Your task to perform on an android device: Search for a new grill on Home Depot Image 0: 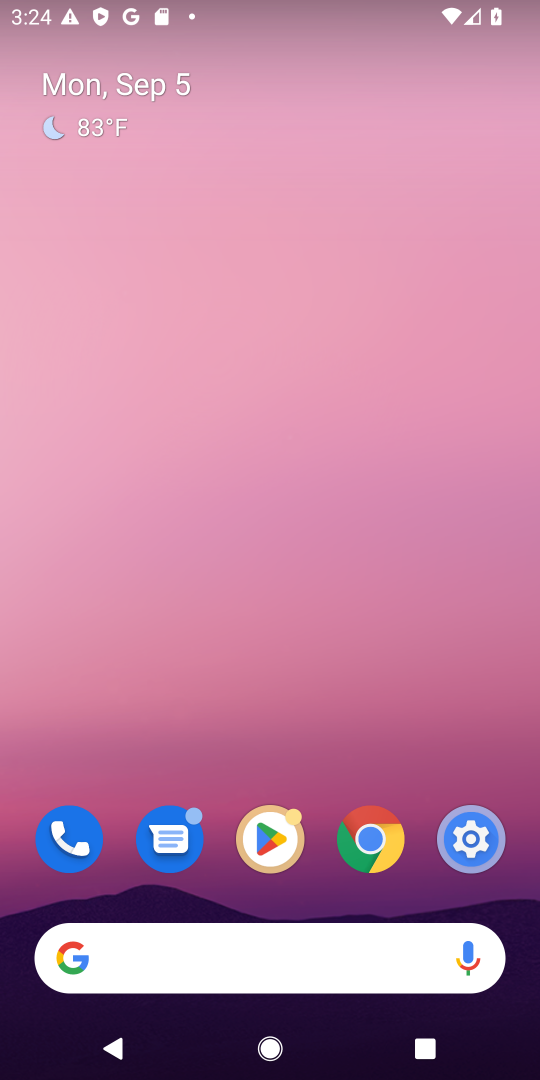
Step 0: click (383, 955)
Your task to perform on an android device: Search for a new grill on Home Depot Image 1: 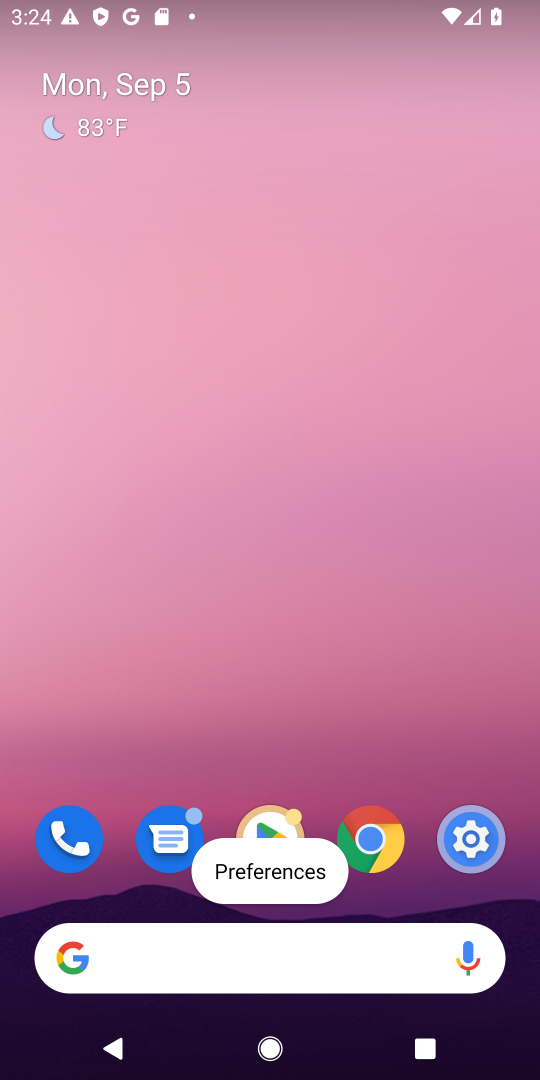
Step 1: click (381, 956)
Your task to perform on an android device: Search for a new grill on Home Depot Image 2: 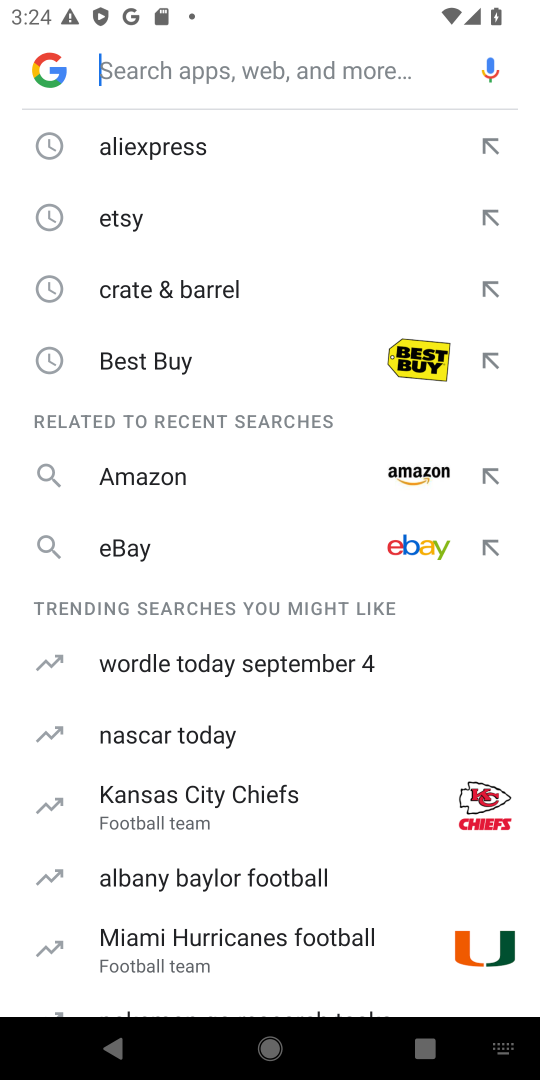
Step 2: type "home depot"
Your task to perform on an android device: Search for a new grill on Home Depot Image 3: 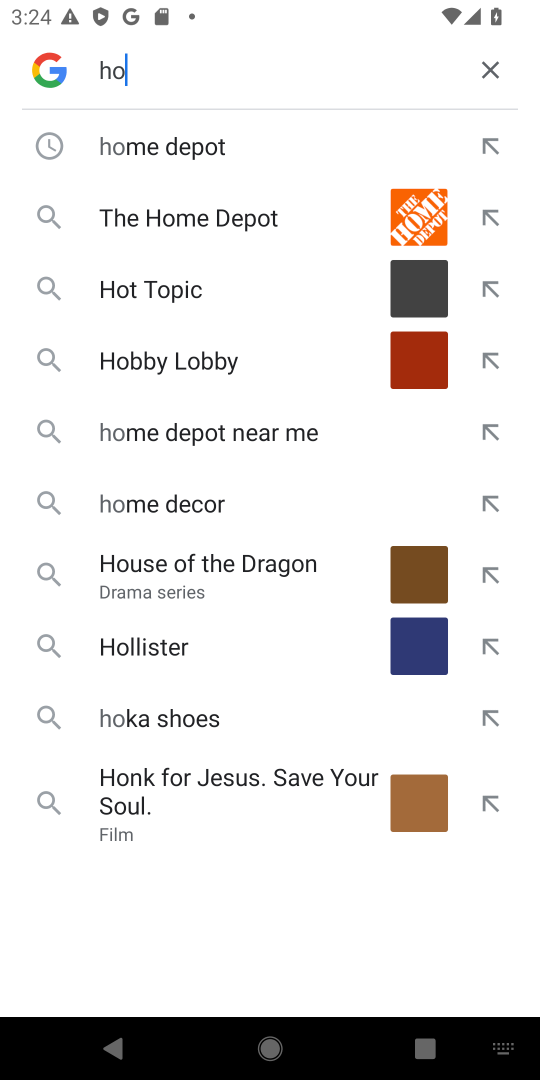
Step 3: type ""
Your task to perform on an android device: Search for a new grill on Home Depot Image 4: 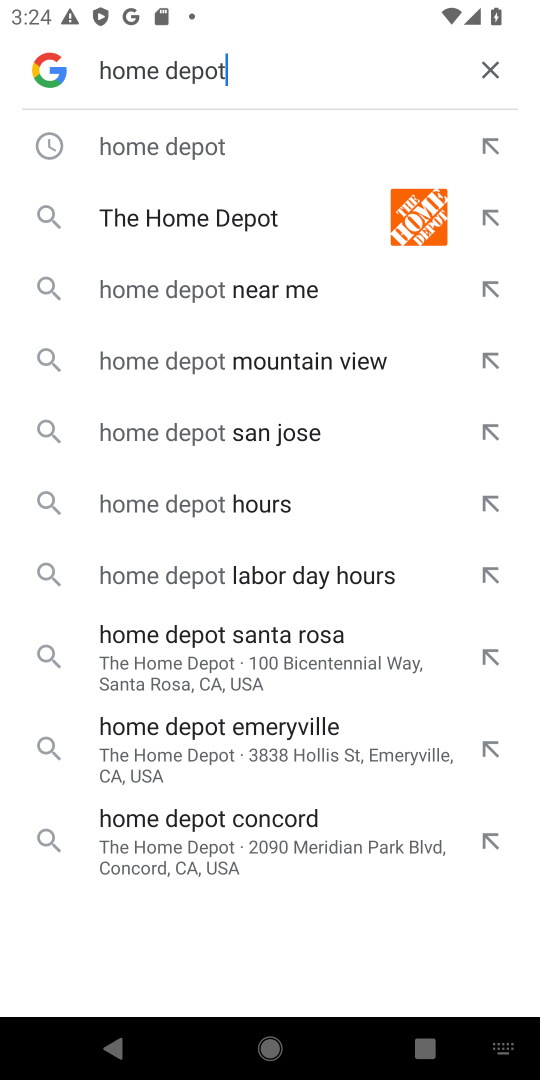
Step 4: press enter
Your task to perform on an android device: Search for a new grill on Home Depot Image 5: 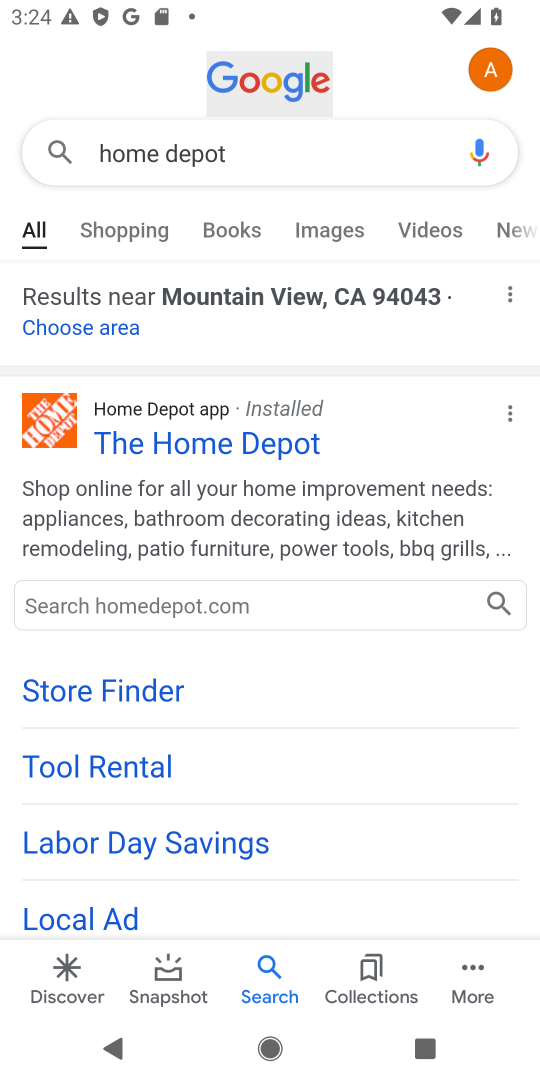
Step 5: drag from (346, 139) to (346, 84)
Your task to perform on an android device: Search for a new grill on Home Depot Image 6: 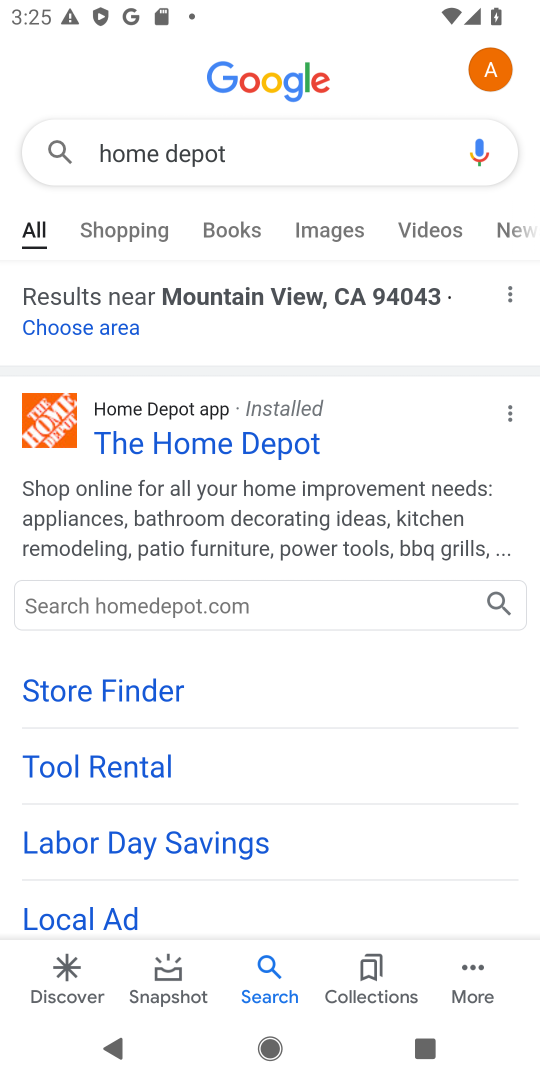
Step 6: drag from (398, 414) to (419, 90)
Your task to perform on an android device: Search for a new grill on Home Depot Image 7: 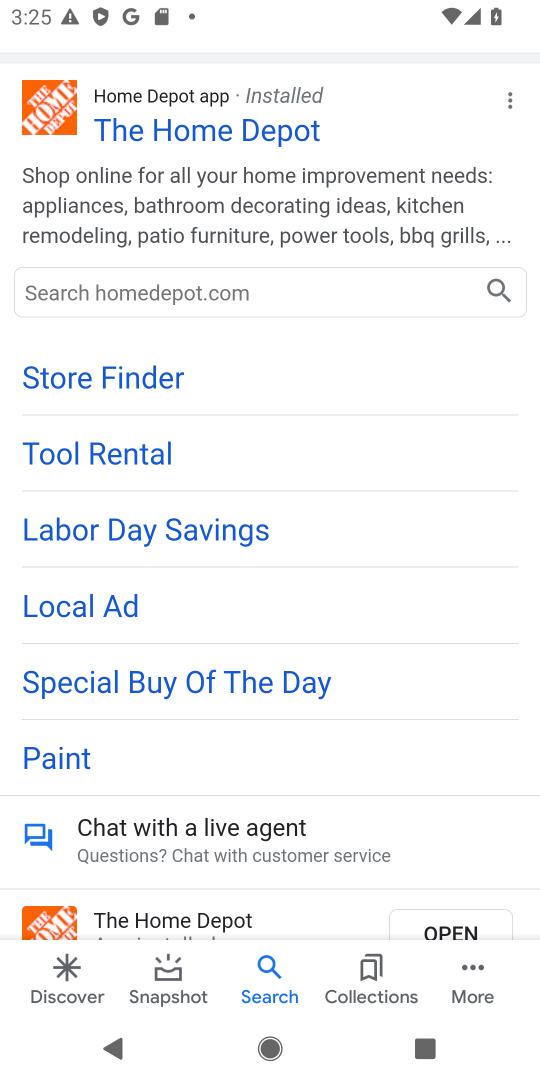
Step 7: drag from (315, 892) to (389, 201)
Your task to perform on an android device: Search for a new grill on Home Depot Image 8: 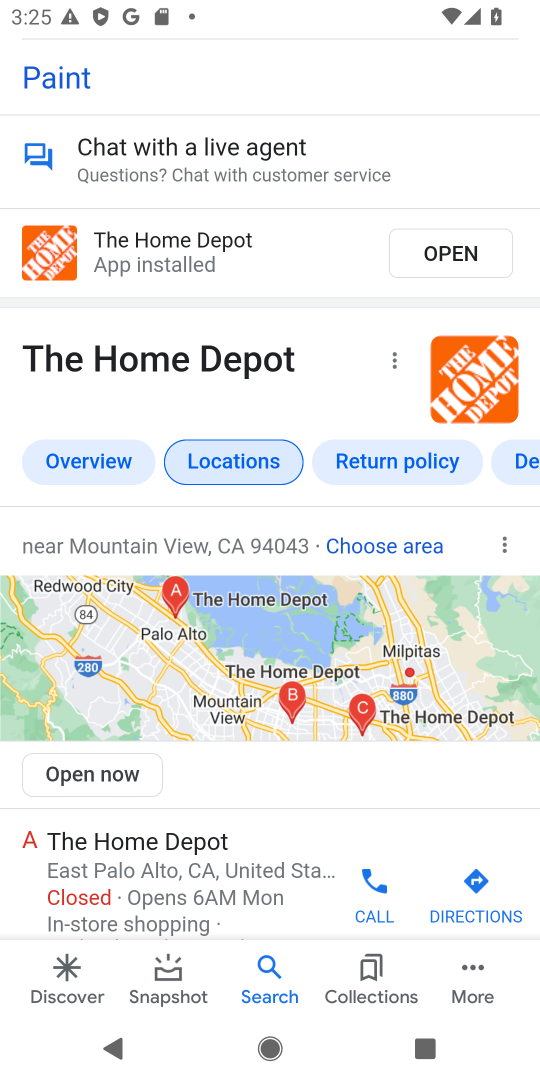
Step 8: drag from (345, 747) to (352, 105)
Your task to perform on an android device: Search for a new grill on Home Depot Image 9: 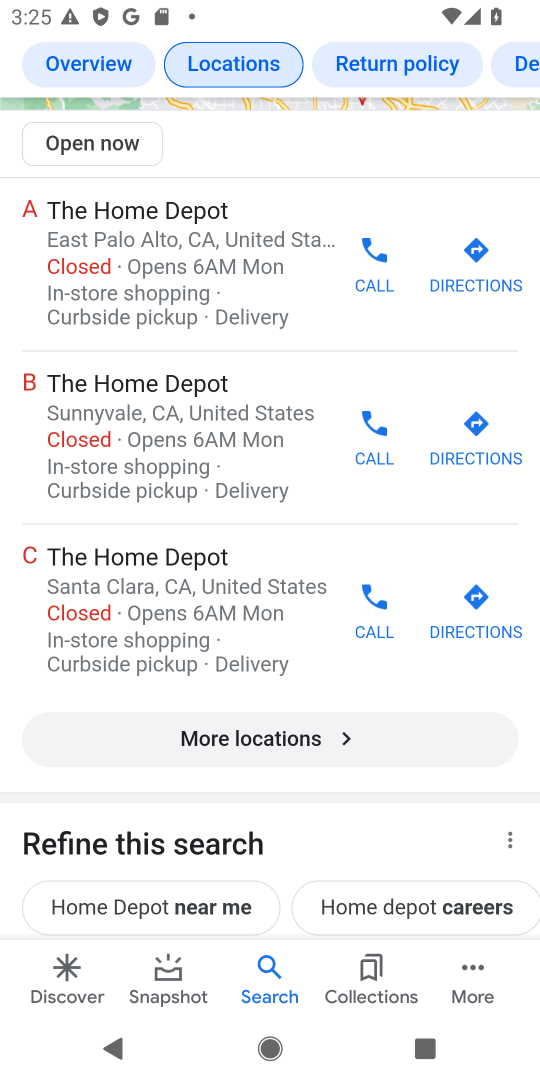
Step 9: drag from (283, 723) to (307, 254)
Your task to perform on an android device: Search for a new grill on Home Depot Image 10: 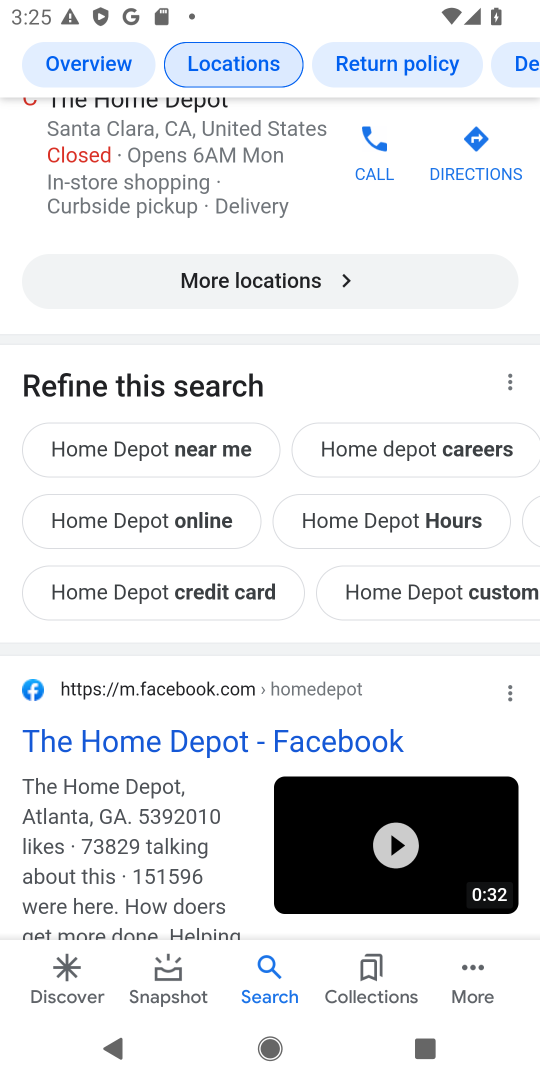
Step 10: click (422, 700)
Your task to perform on an android device: Search for a new grill on Home Depot Image 11: 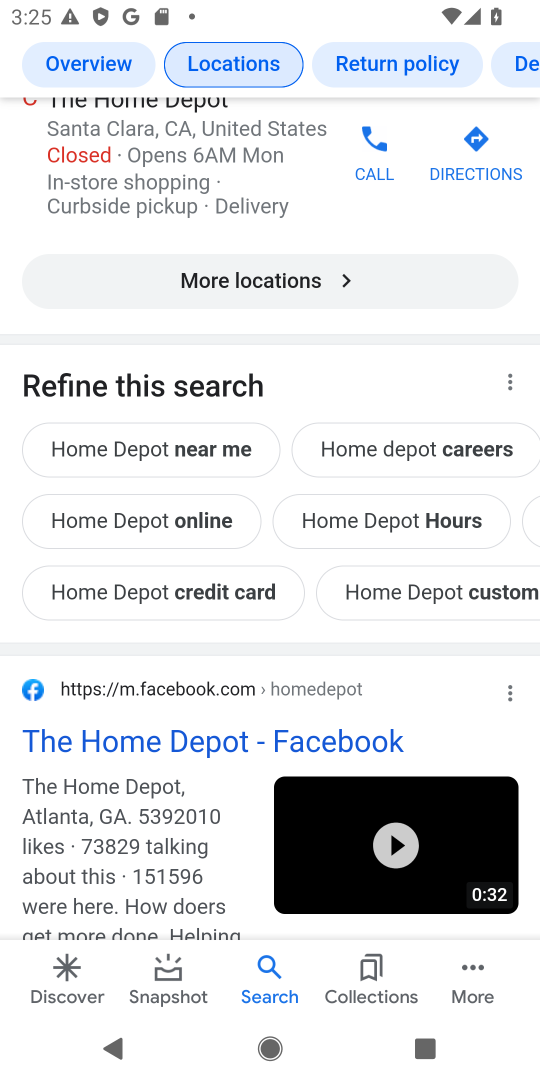
Step 11: drag from (419, 405) to (419, 246)
Your task to perform on an android device: Search for a new grill on Home Depot Image 12: 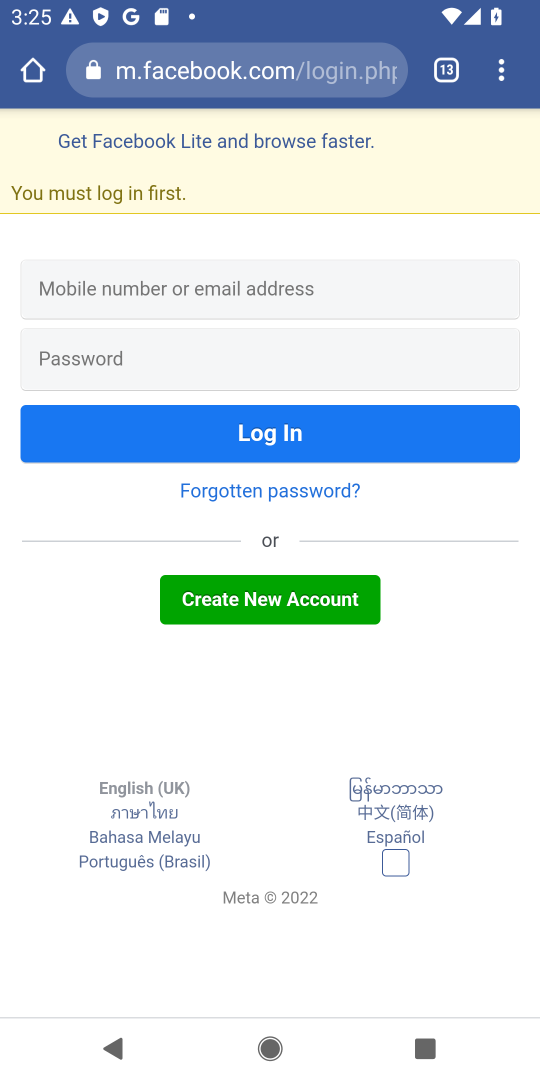
Step 12: press back button
Your task to perform on an android device: Search for a new grill on Home Depot Image 13: 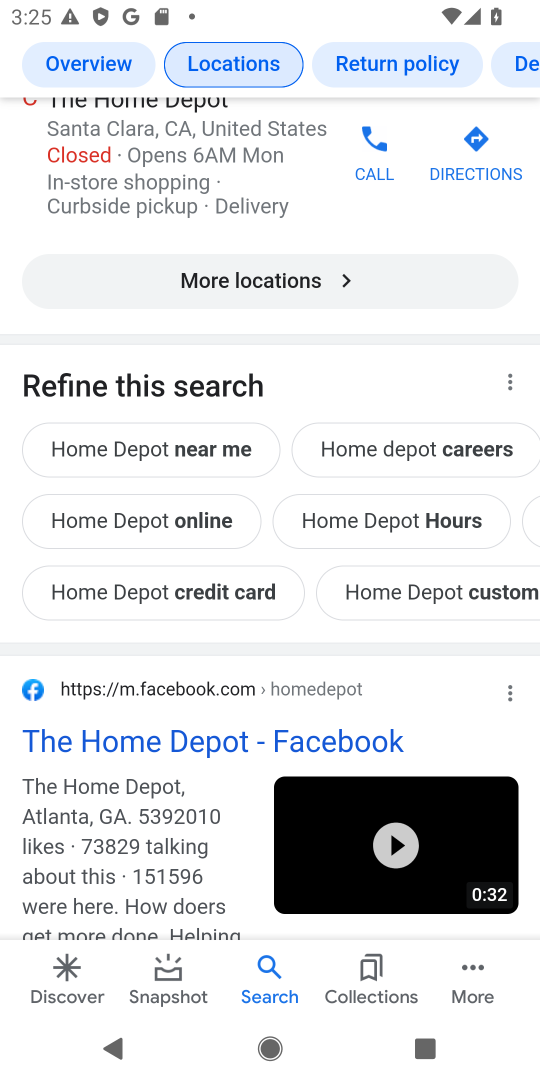
Step 13: drag from (8, 574) to (53, 238)
Your task to perform on an android device: Search for a new grill on Home Depot Image 14: 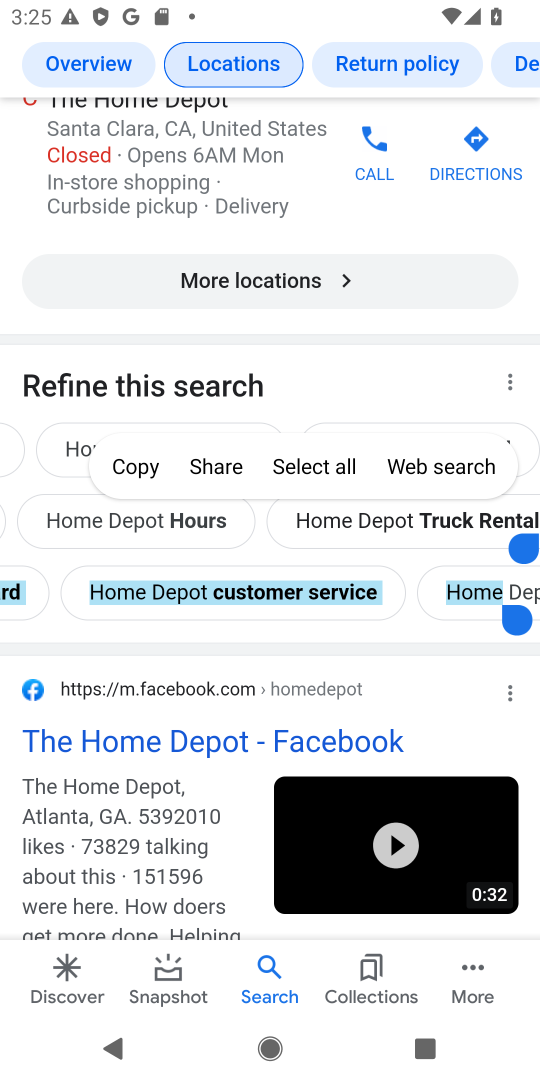
Step 14: drag from (309, 335) to (299, 1070)
Your task to perform on an android device: Search for a new grill on Home Depot Image 15: 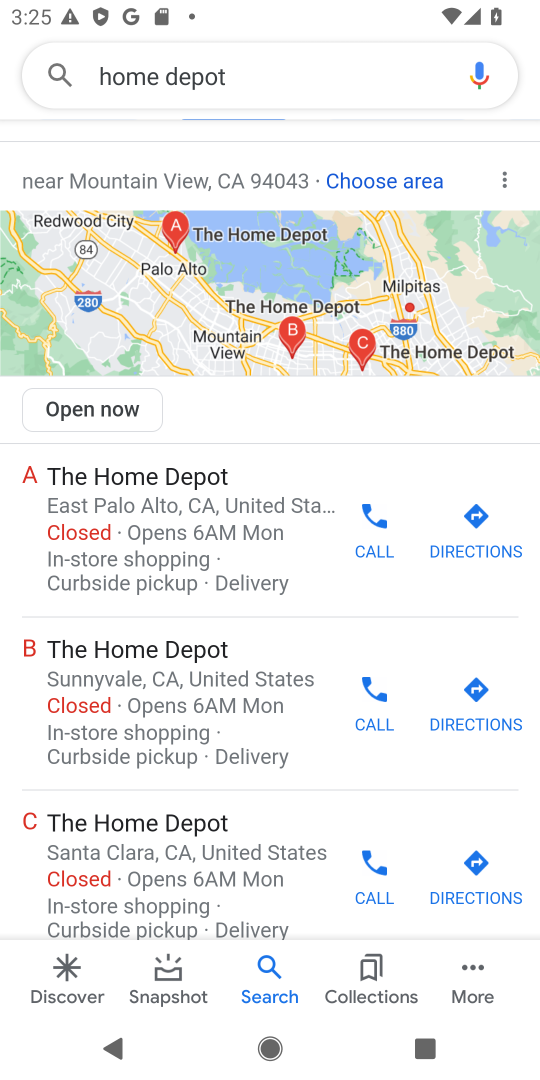
Step 15: drag from (327, 416) to (334, 1048)
Your task to perform on an android device: Search for a new grill on Home Depot Image 16: 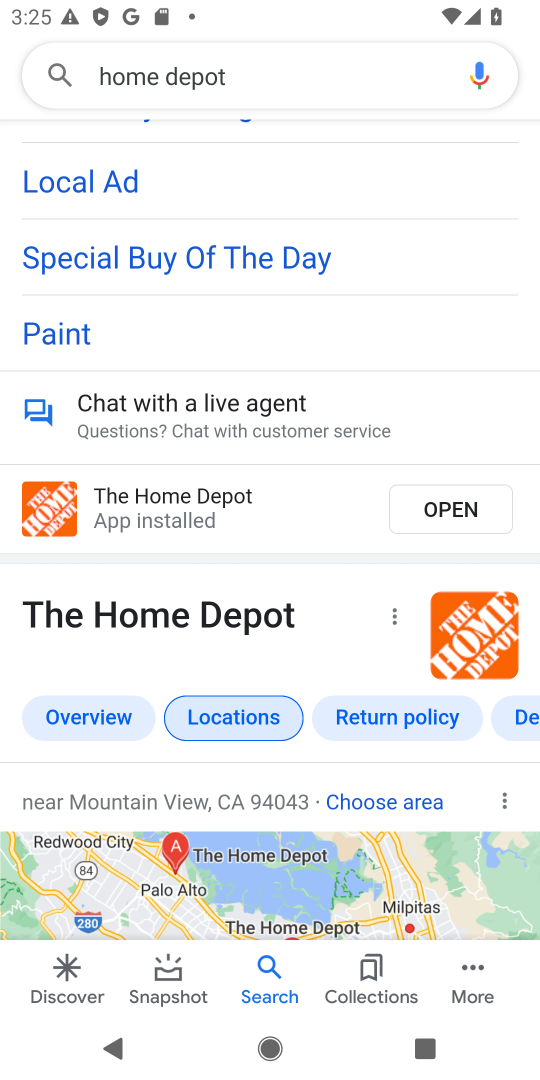
Step 16: drag from (324, 719) to (330, 944)
Your task to perform on an android device: Search for a new grill on Home Depot Image 17: 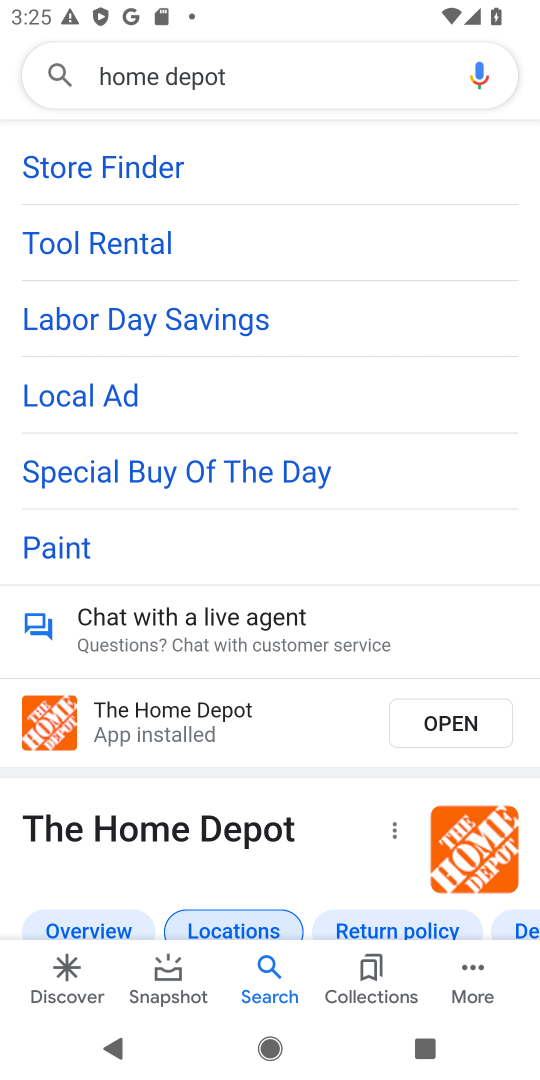
Step 17: drag from (317, 695) to (328, 950)
Your task to perform on an android device: Search for a new grill on Home Depot Image 18: 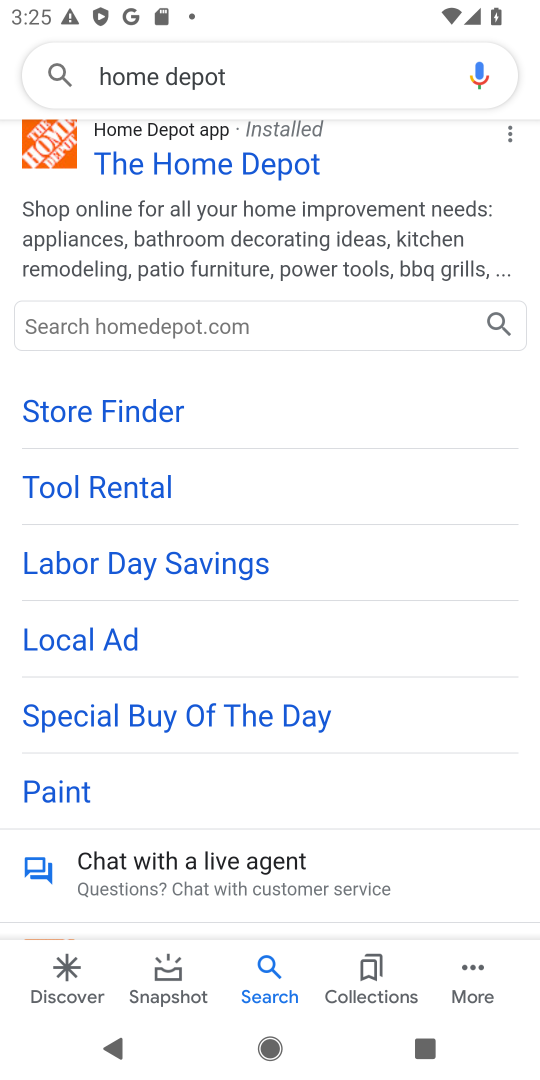
Step 18: click (256, 324)
Your task to perform on an android device: Search for a new grill on Home Depot Image 19: 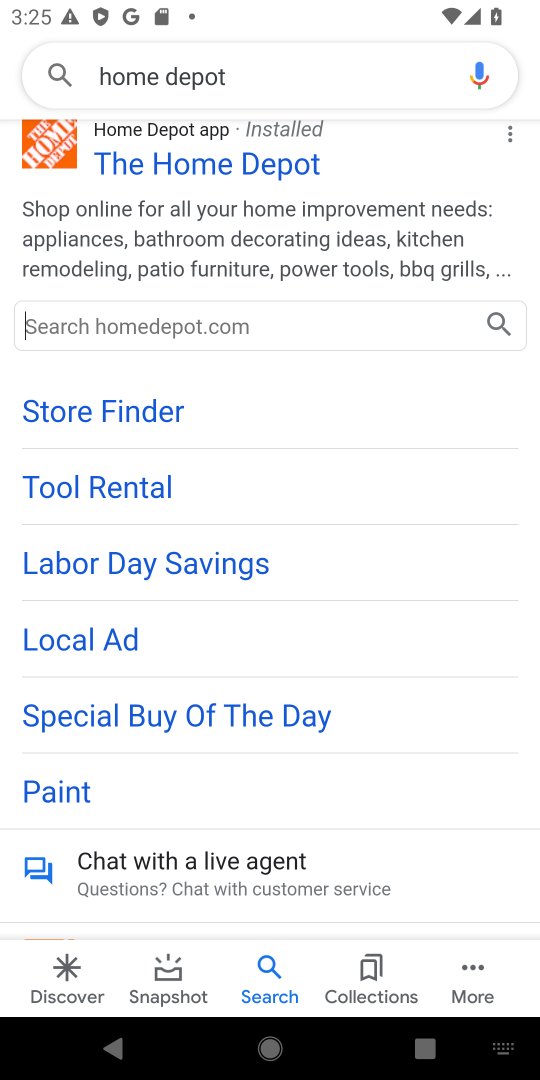
Step 19: type "new grill"
Your task to perform on an android device: Search for a new grill on Home Depot Image 20: 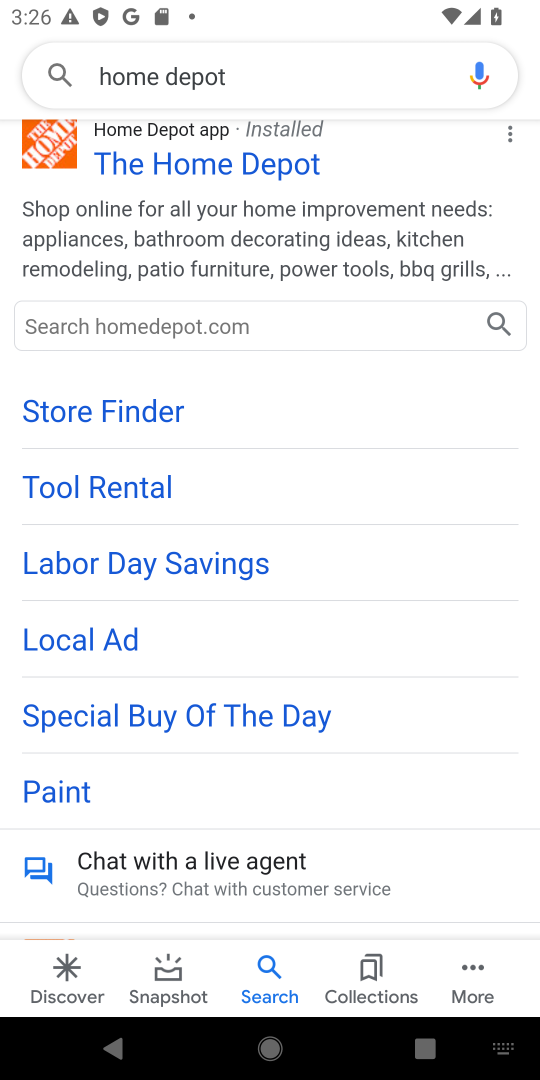
Step 20: type ""
Your task to perform on an android device: Search for a new grill on Home Depot Image 21: 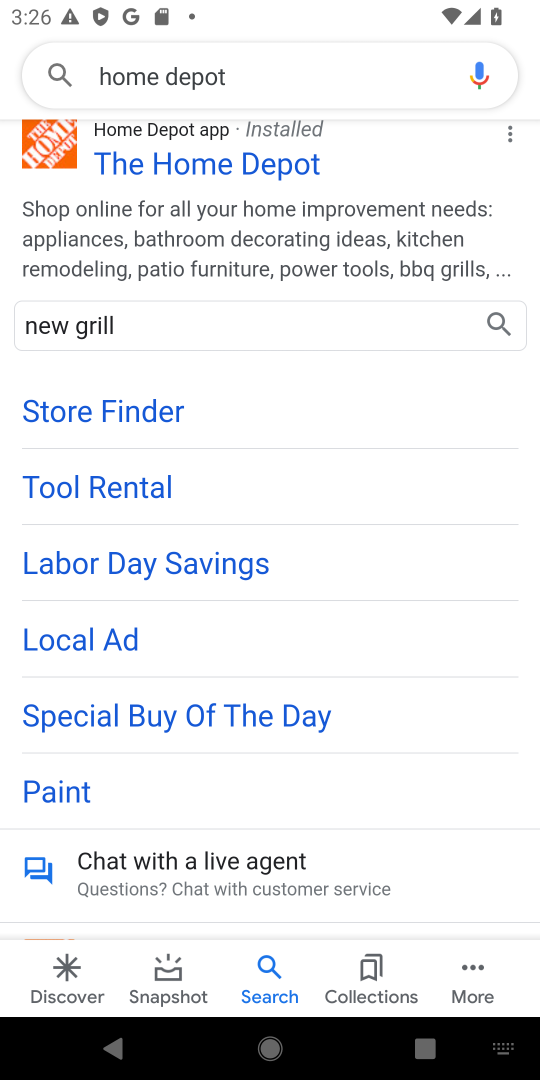
Step 21: press enter
Your task to perform on an android device: Search for a new grill on Home Depot Image 22: 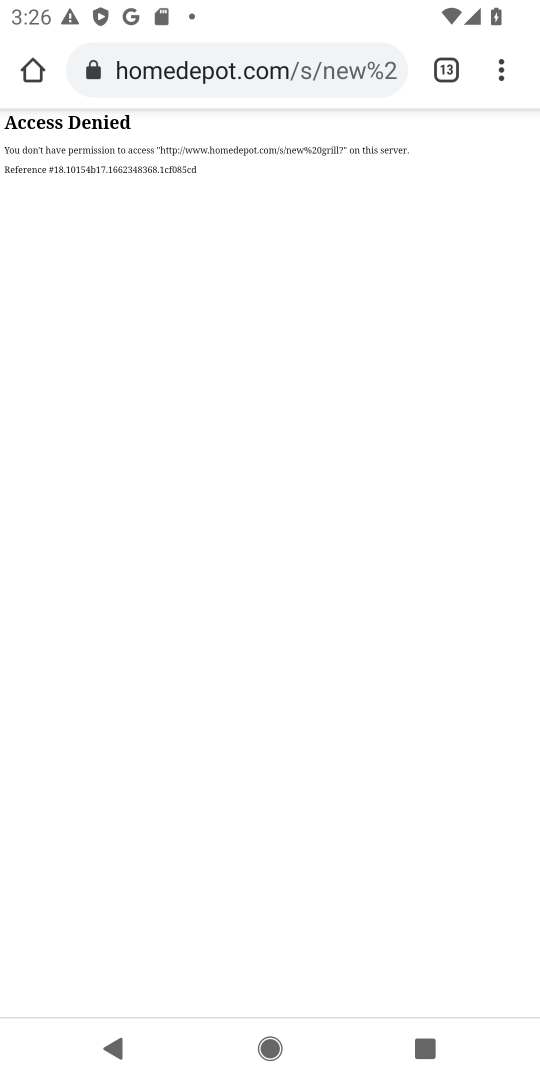
Step 22: task impossible
Your task to perform on an android device: Search for a new grill on Home Depot Image 23: 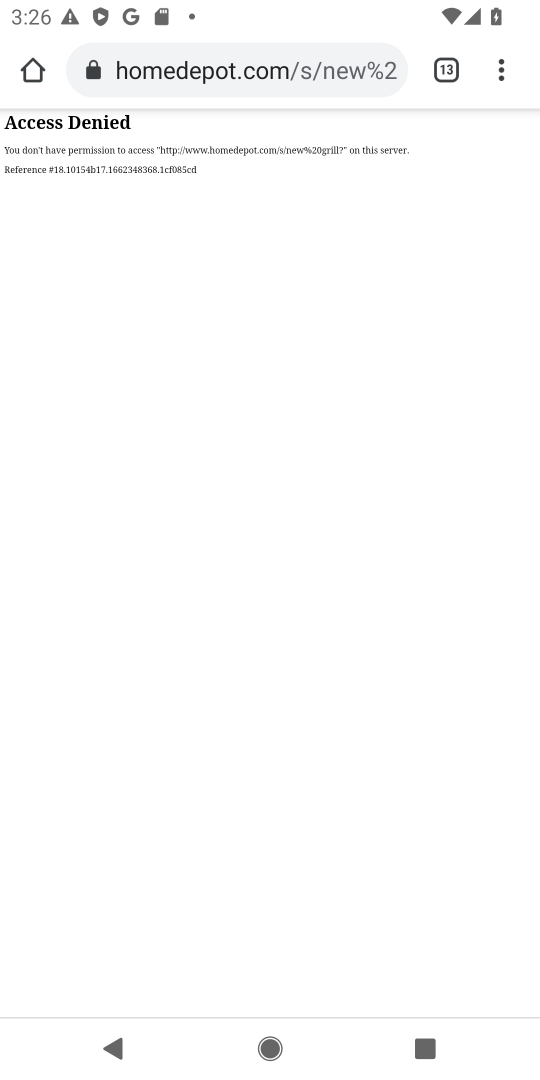
Step 23: task complete